Your task to perform on an android device: empty trash in google photos Image 0: 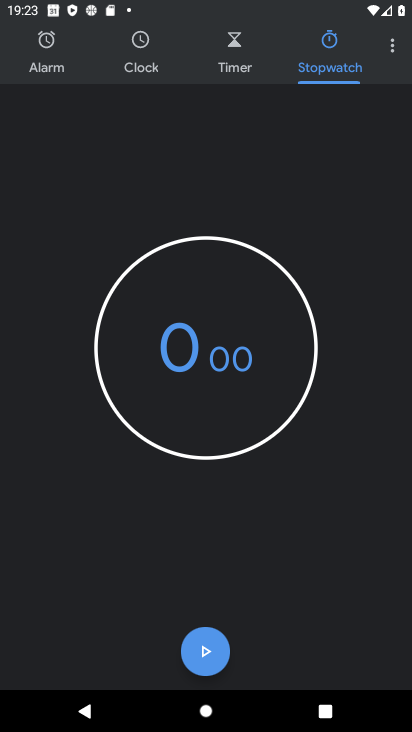
Step 0: press home button
Your task to perform on an android device: empty trash in google photos Image 1: 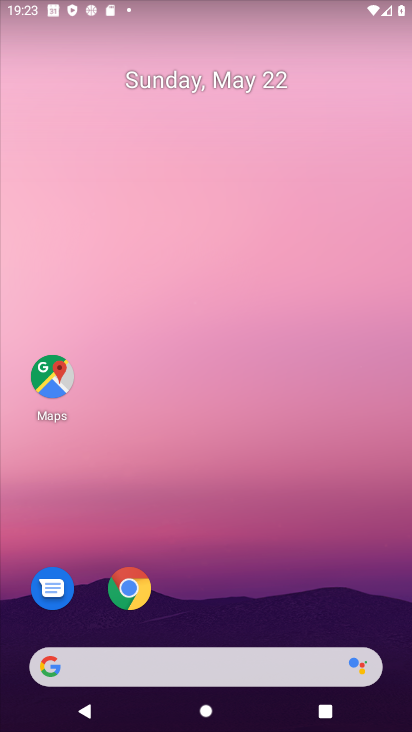
Step 1: drag from (241, 538) to (229, 143)
Your task to perform on an android device: empty trash in google photos Image 2: 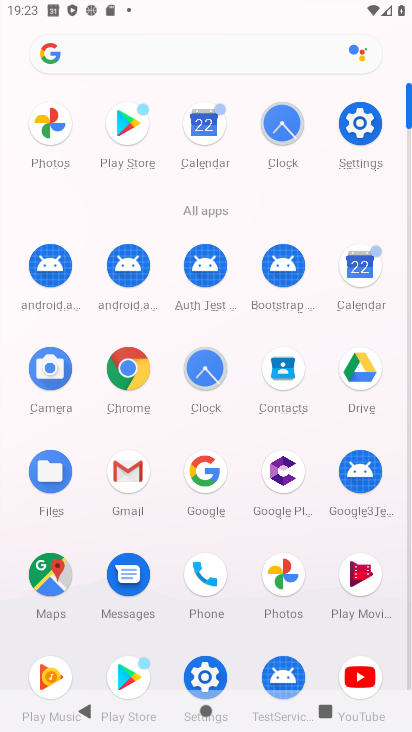
Step 2: click (50, 123)
Your task to perform on an android device: empty trash in google photos Image 3: 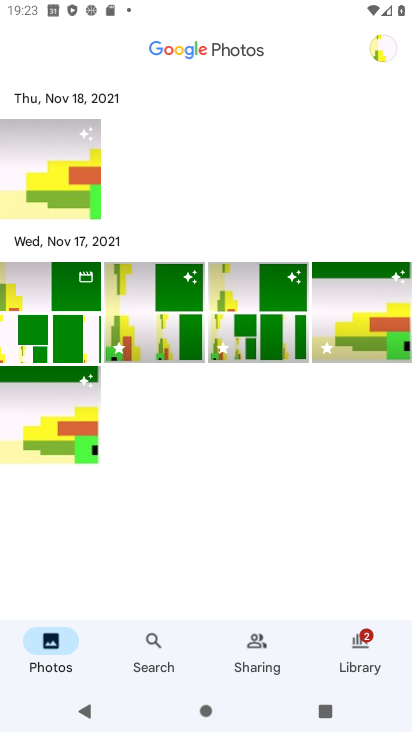
Step 3: click (359, 649)
Your task to perform on an android device: empty trash in google photos Image 4: 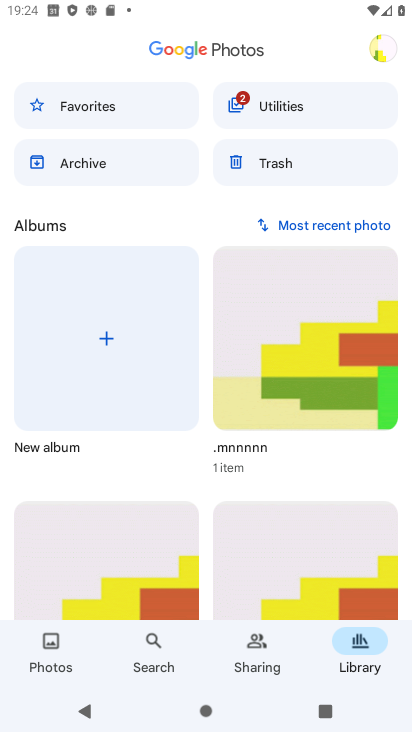
Step 4: click (261, 158)
Your task to perform on an android device: empty trash in google photos Image 5: 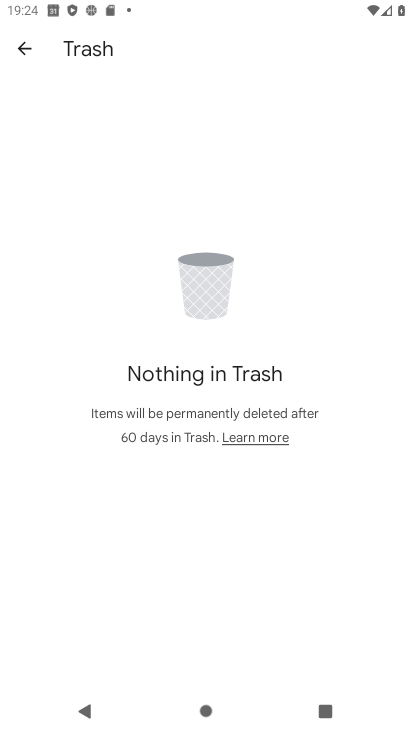
Step 5: task complete